Your task to perform on an android device: Show the shopping cart on bestbuy. Search for "razer deathadder" on bestbuy, select the first entry, and add it to the cart. Image 0: 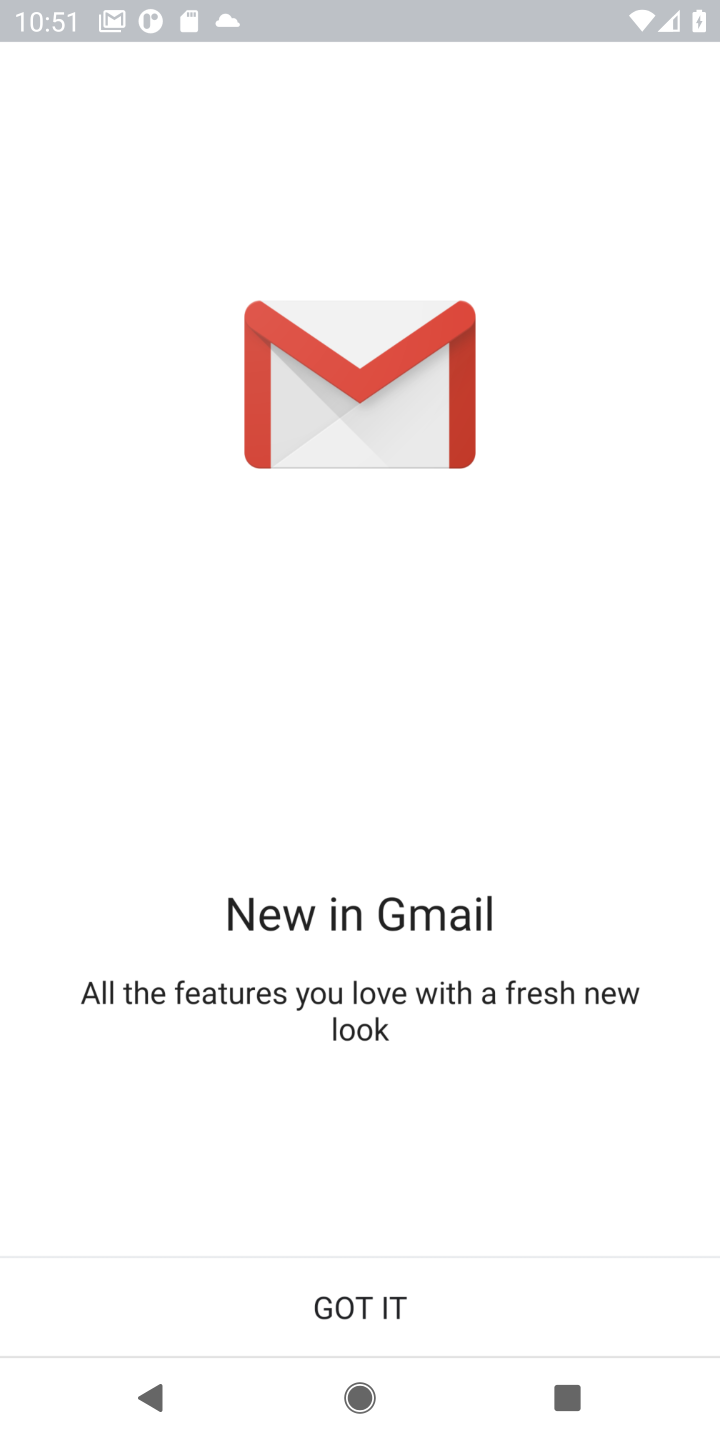
Step 0: press home button
Your task to perform on an android device: Show the shopping cart on bestbuy. Search for "razer deathadder" on bestbuy, select the first entry, and add it to the cart. Image 1: 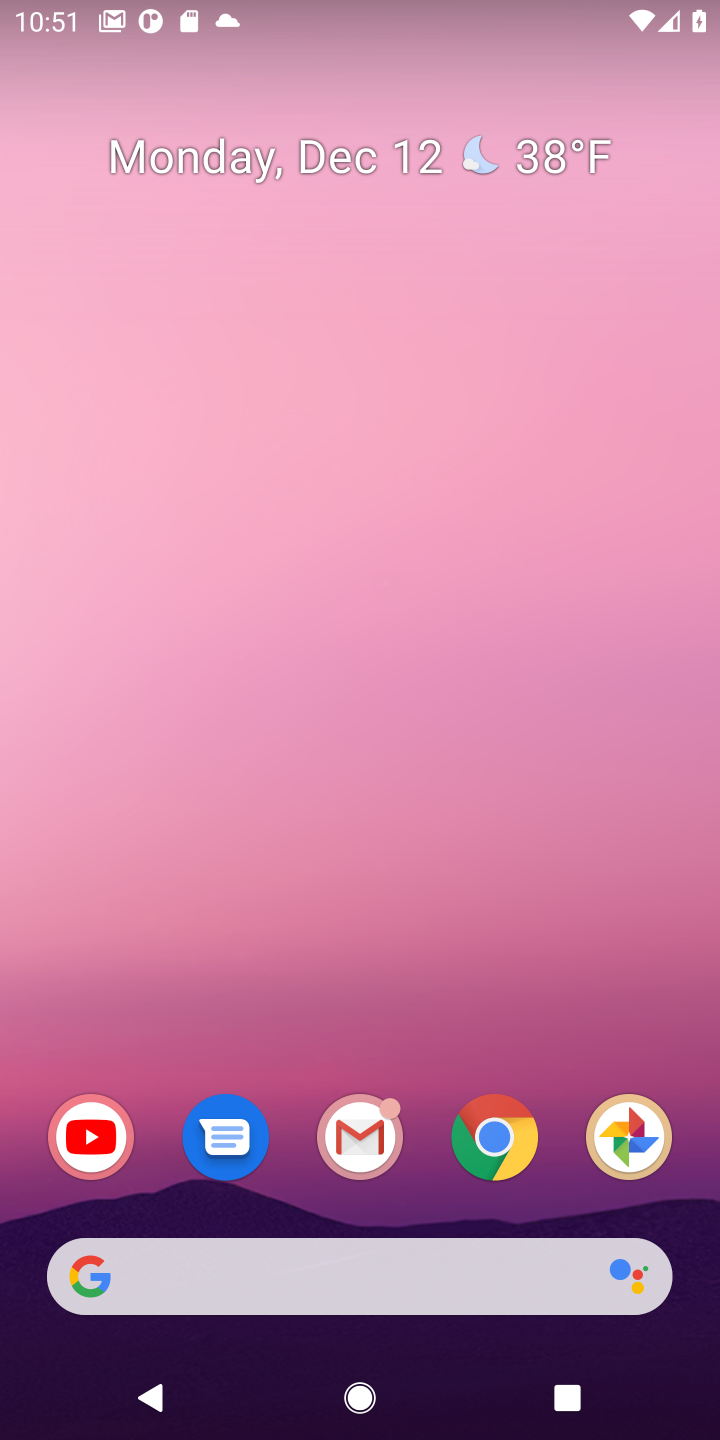
Step 1: click (438, 1290)
Your task to perform on an android device: Show the shopping cart on bestbuy. Search for "razer deathadder" on bestbuy, select the first entry, and add it to the cart. Image 2: 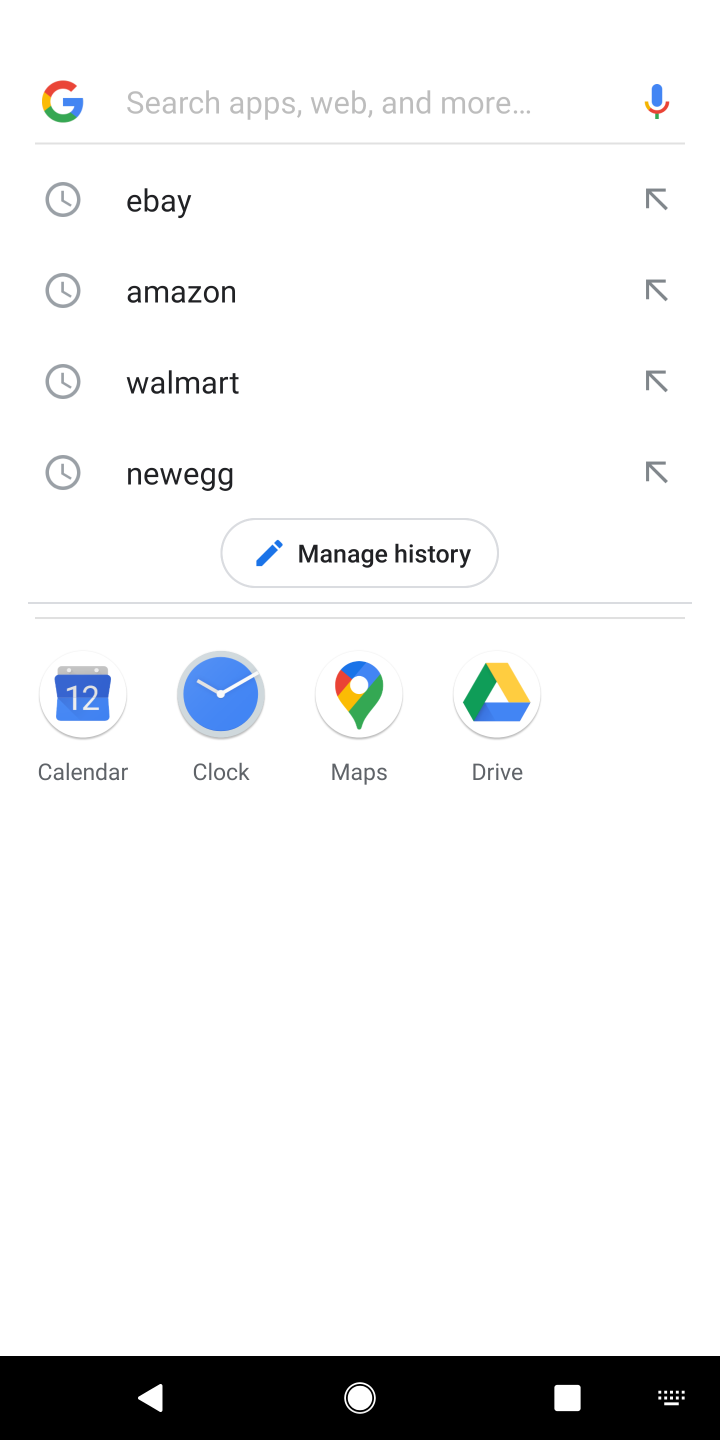
Step 2: type "bestbuy"
Your task to perform on an android device: Show the shopping cart on bestbuy. Search for "razer deathadder" on bestbuy, select the first entry, and add it to the cart. Image 3: 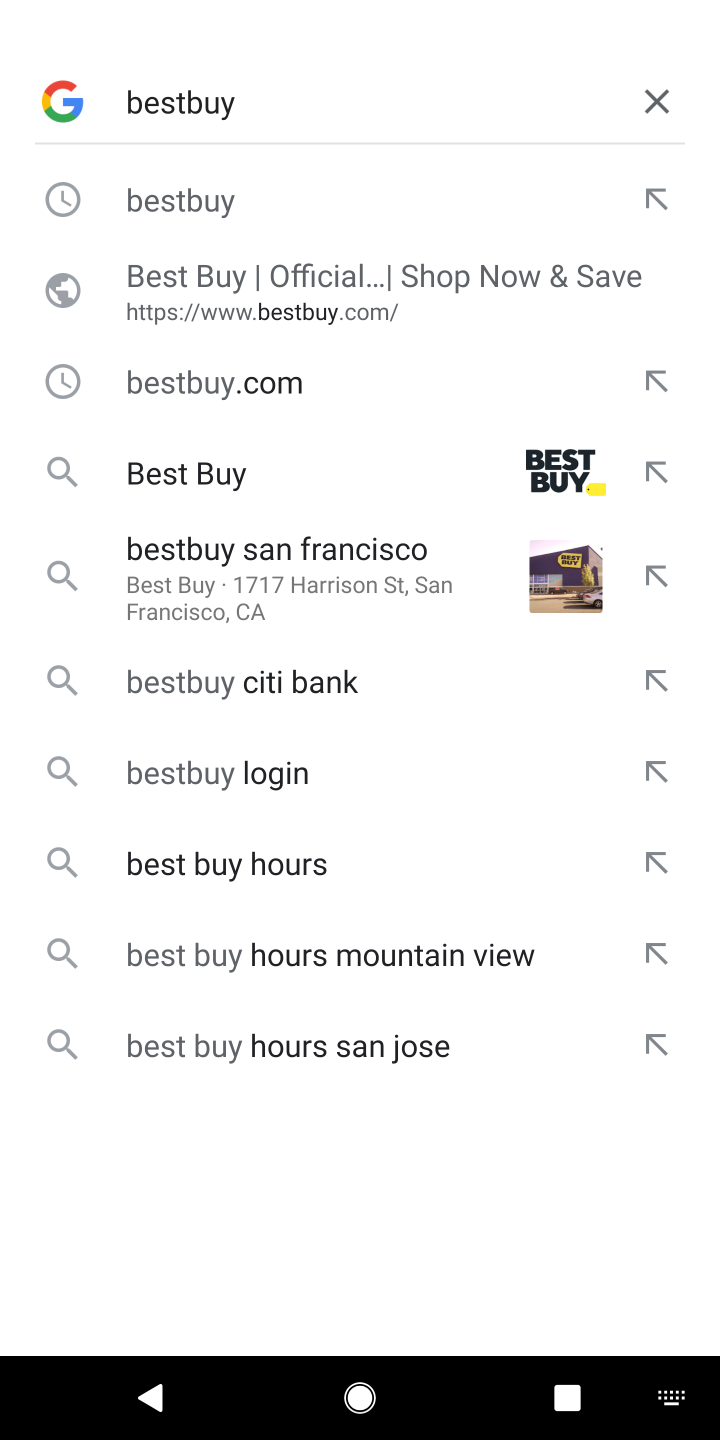
Step 3: click (274, 183)
Your task to perform on an android device: Show the shopping cart on bestbuy. Search for "razer deathadder" on bestbuy, select the first entry, and add it to the cart. Image 4: 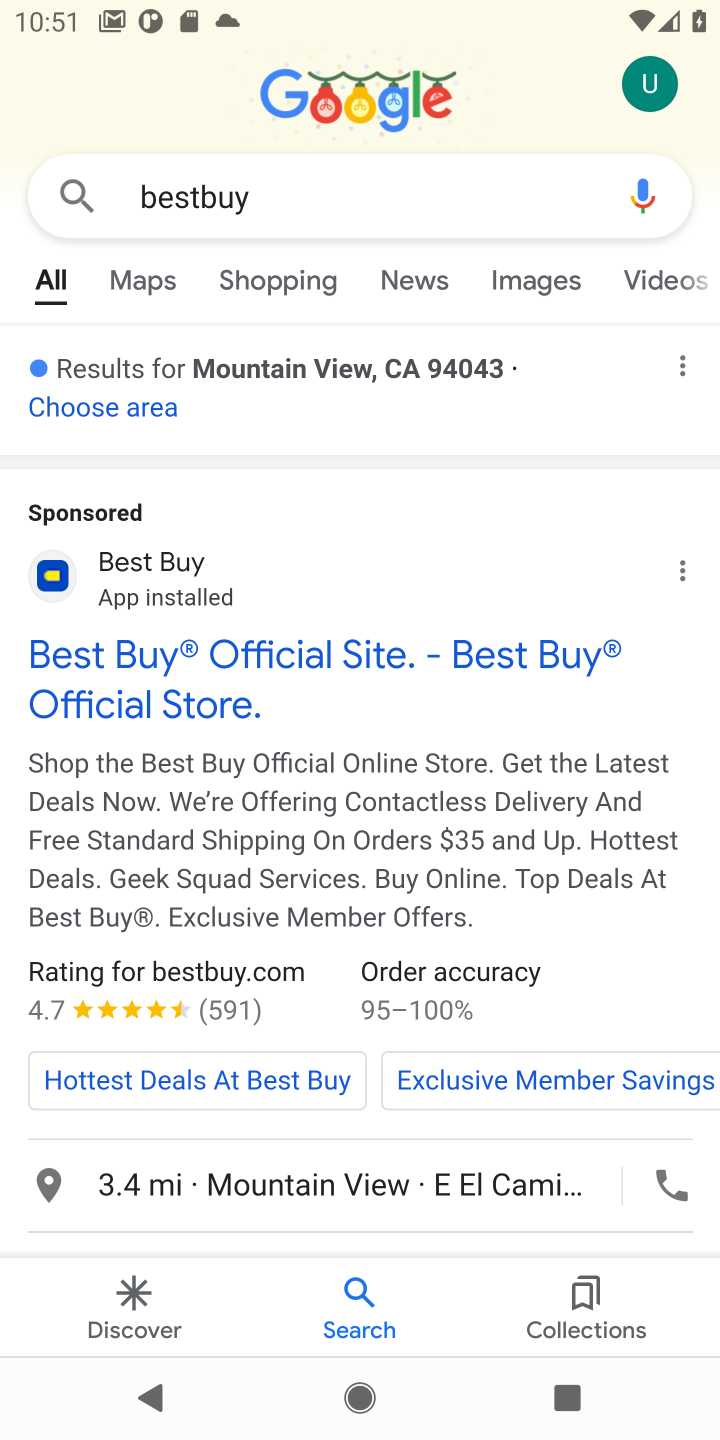
Step 4: click (188, 646)
Your task to perform on an android device: Show the shopping cart on bestbuy. Search for "razer deathadder" on bestbuy, select the first entry, and add it to the cart. Image 5: 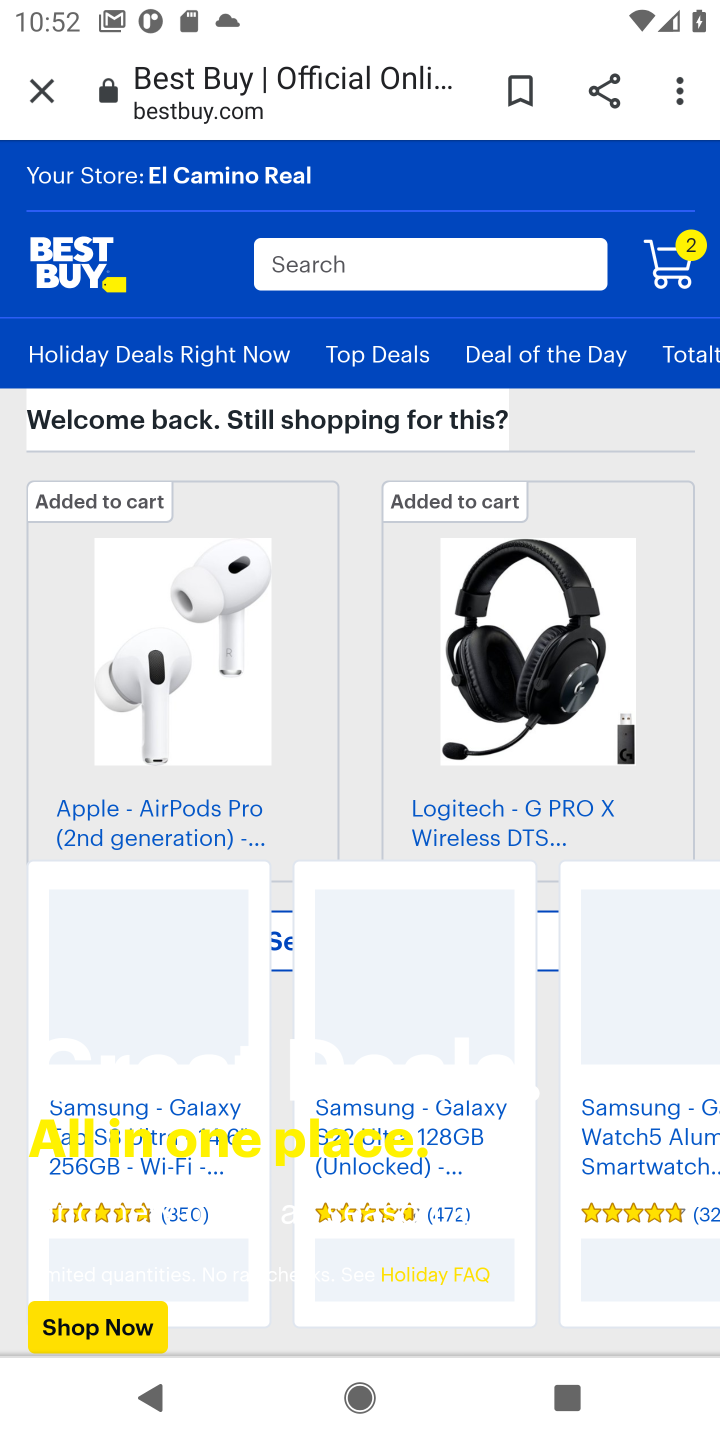
Step 5: click (350, 258)
Your task to perform on an android device: Show the shopping cart on bestbuy. Search for "razer deathadder" on bestbuy, select the first entry, and add it to the cart. Image 6: 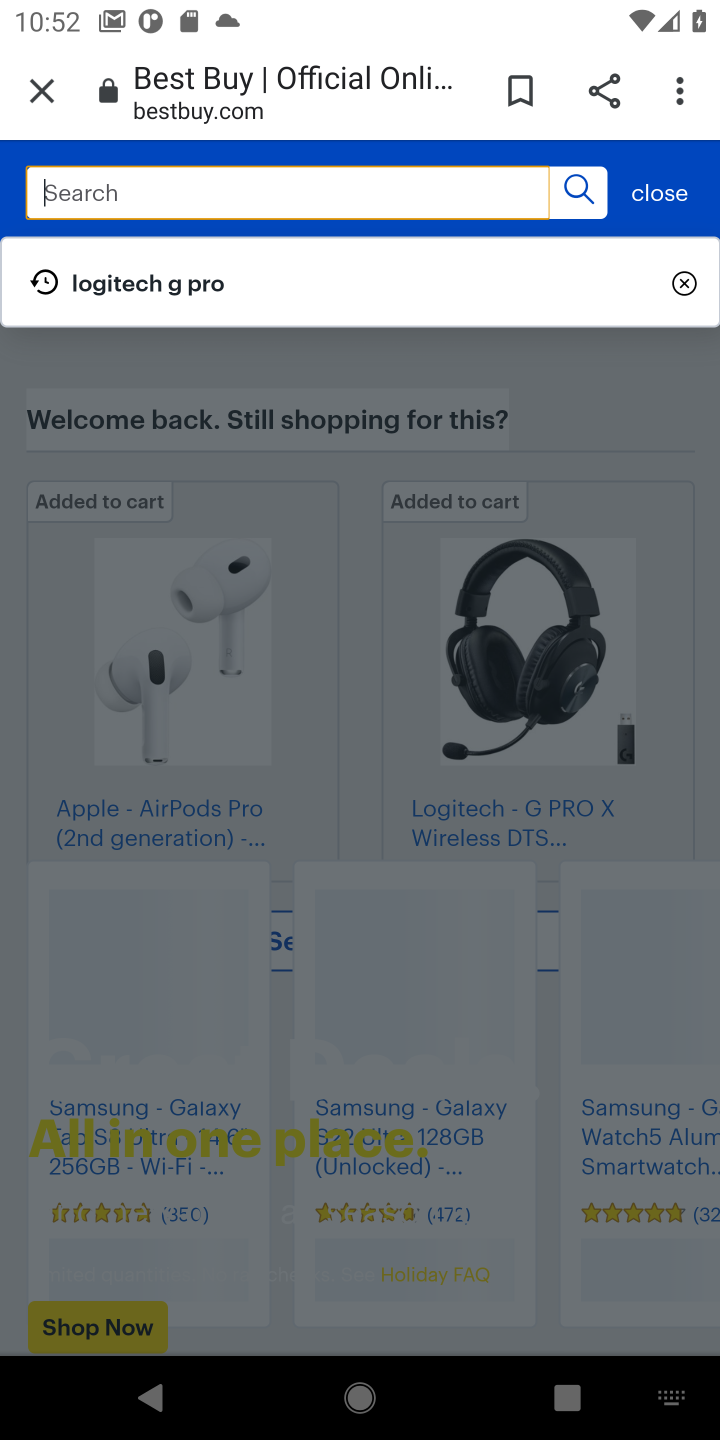
Step 6: type "razer deathadder"
Your task to perform on an android device: Show the shopping cart on bestbuy. Search for "razer deathadder" on bestbuy, select the first entry, and add it to the cart. Image 7: 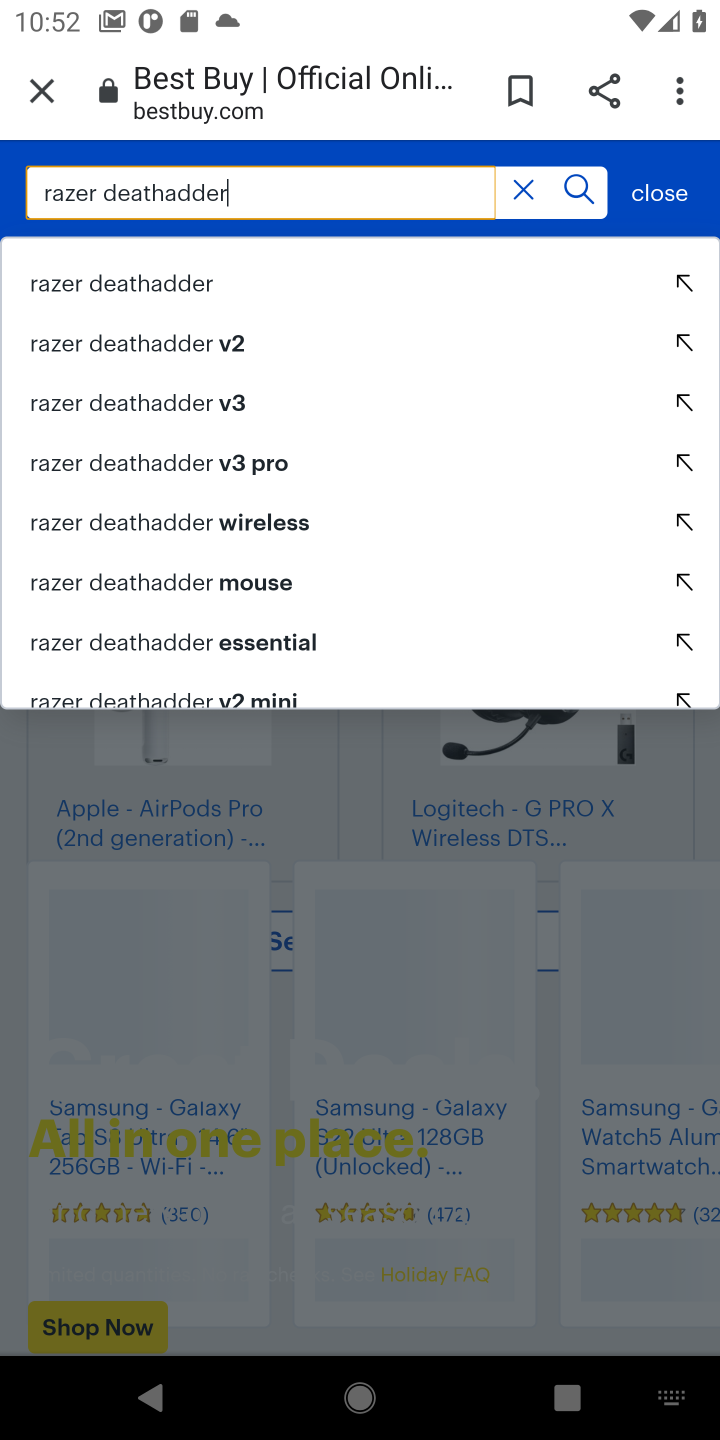
Step 7: click (184, 272)
Your task to perform on an android device: Show the shopping cart on bestbuy. Search for "razer deathadder" on bestbuy, select the first entry, and add it to the cart. Image 8: 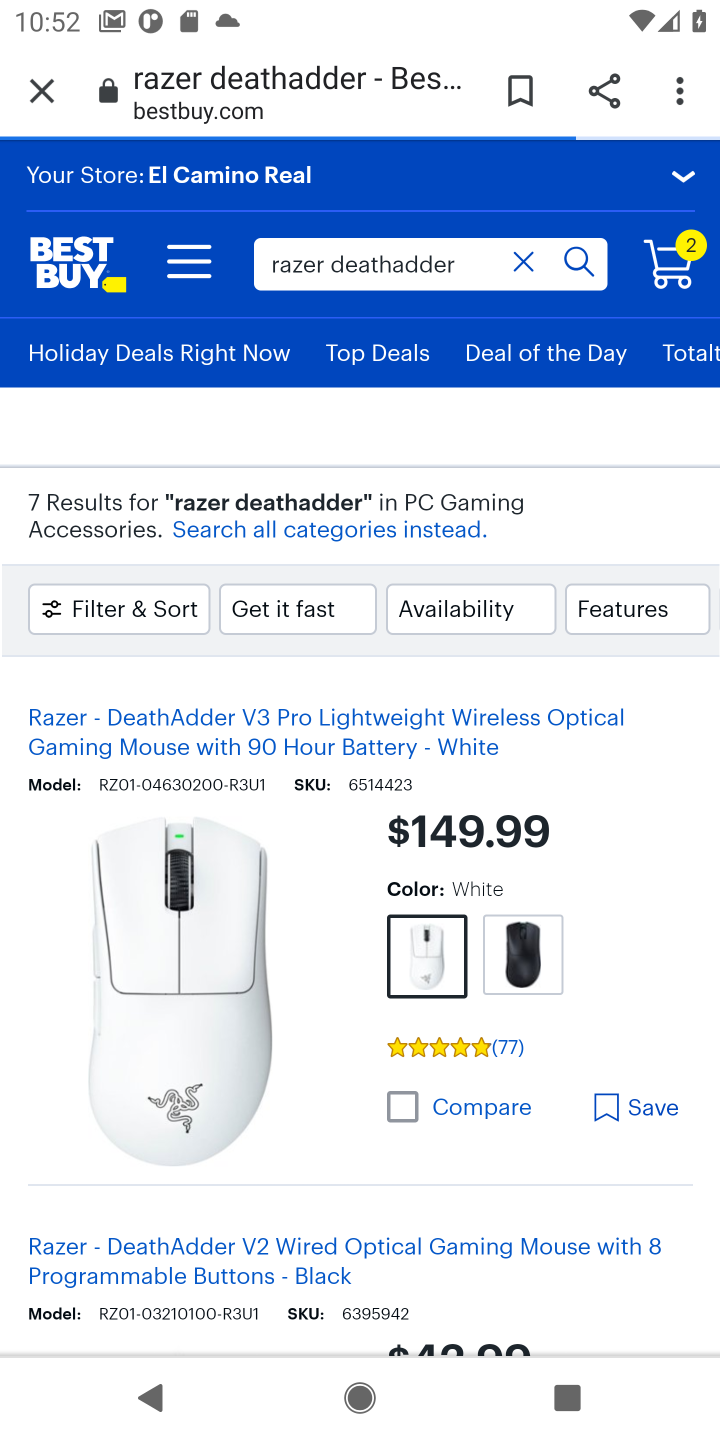
Step 8: drag from (307, 1216) to (314, 762)
Your task to perform on an android device: Show the shopping cart on bestbuy. Search for "razer deathadder" on bestbuy, select the first entry, and add it to the cart. Image 9: 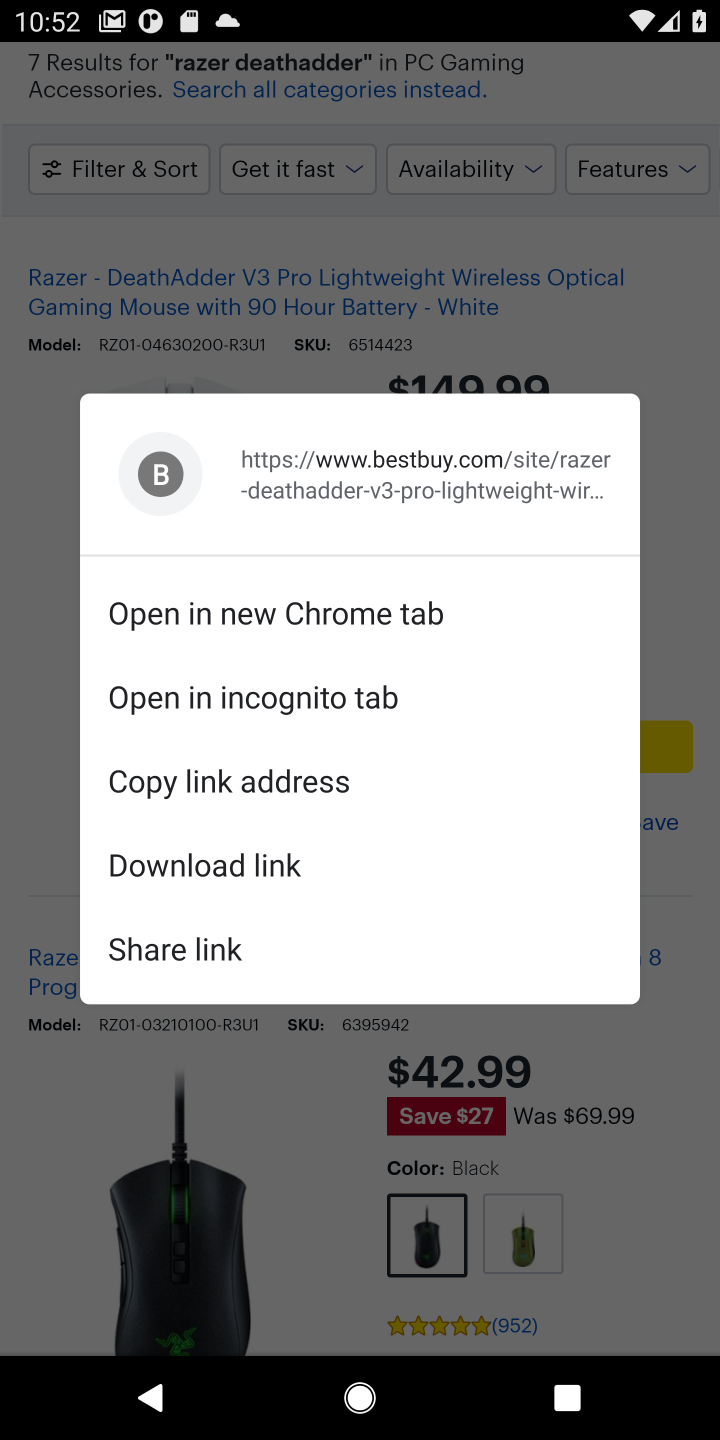
Step 9: click (486, 757)
Your task to perform on an android device: Show the shopping cart on bestbuy. Search for "razer deathadder" on bestbuy, select the first entry, and add it to the cart. Image 10: 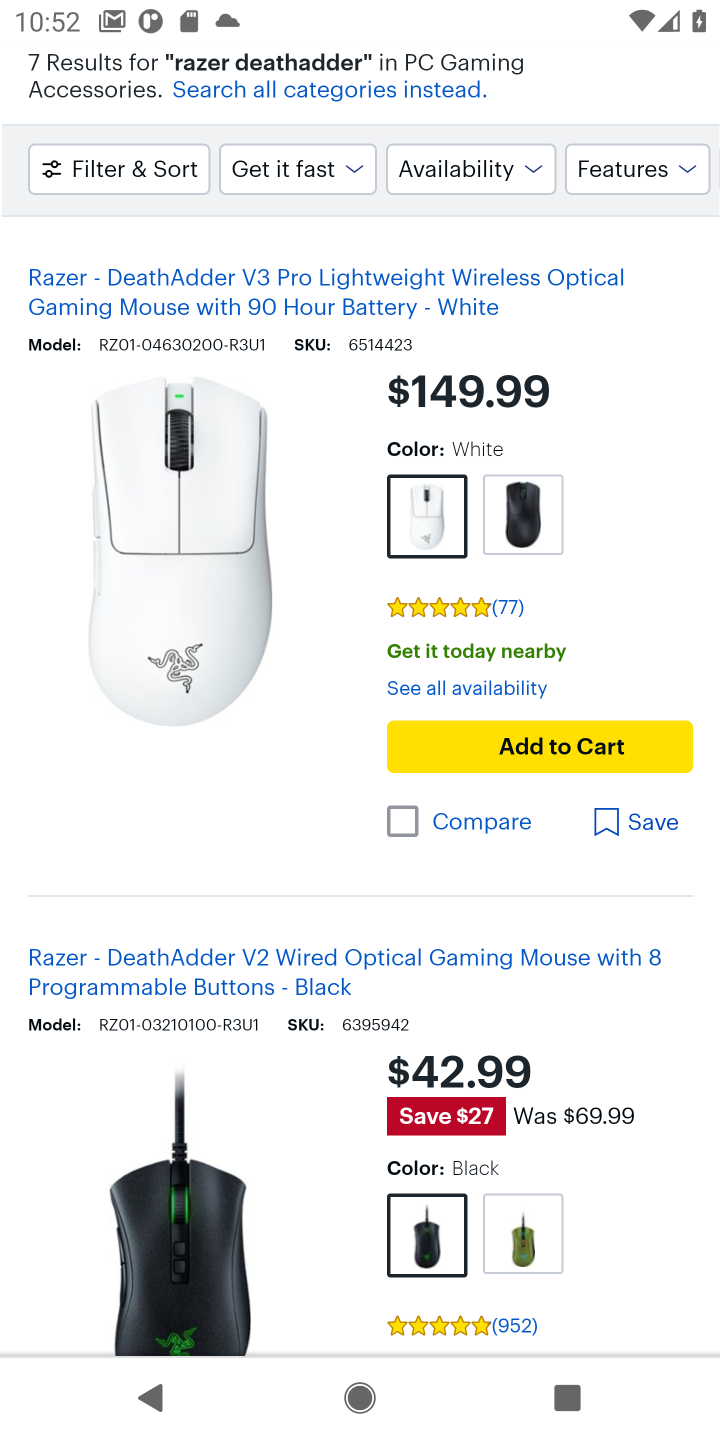
Step 10: click (692, 788)
Your task to perform on an android device: Show the shopping cart on bestbuy. Search for "razer deathadder" on bestbuy, select the first entry, and add it to the cart. Image 11: 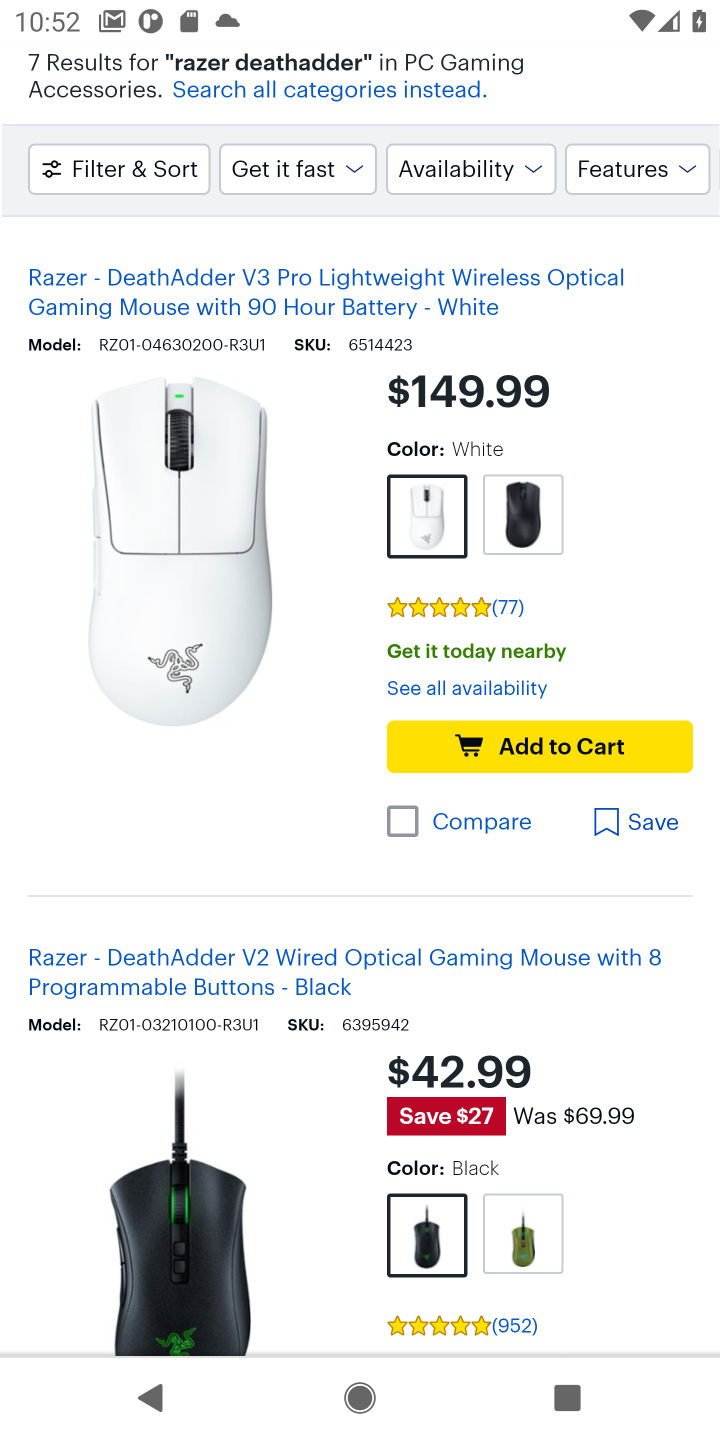
Step 11: click (674, 766)
Your task to perform on an android device: Show the shopping cart on bestbuy. Search for "razer deathadder" on bestbuy, select the first entry, and add it to the cart. Image 12: 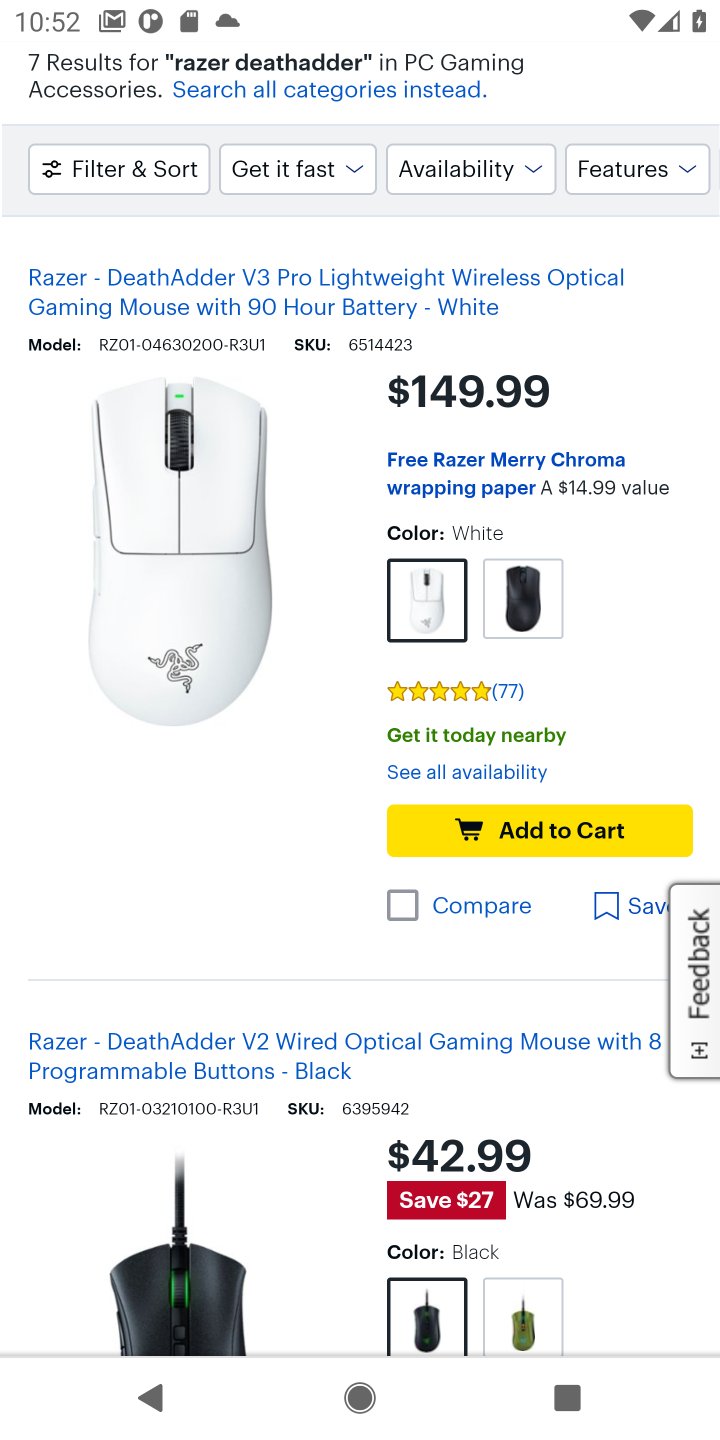
Step 12: click (599, 817)
Your task to perform on an android device: Show the shopping cart on bestbuy. Search for "razer deathadder" on bestbuy, select the first entry, and add it to the cart. Image 13: 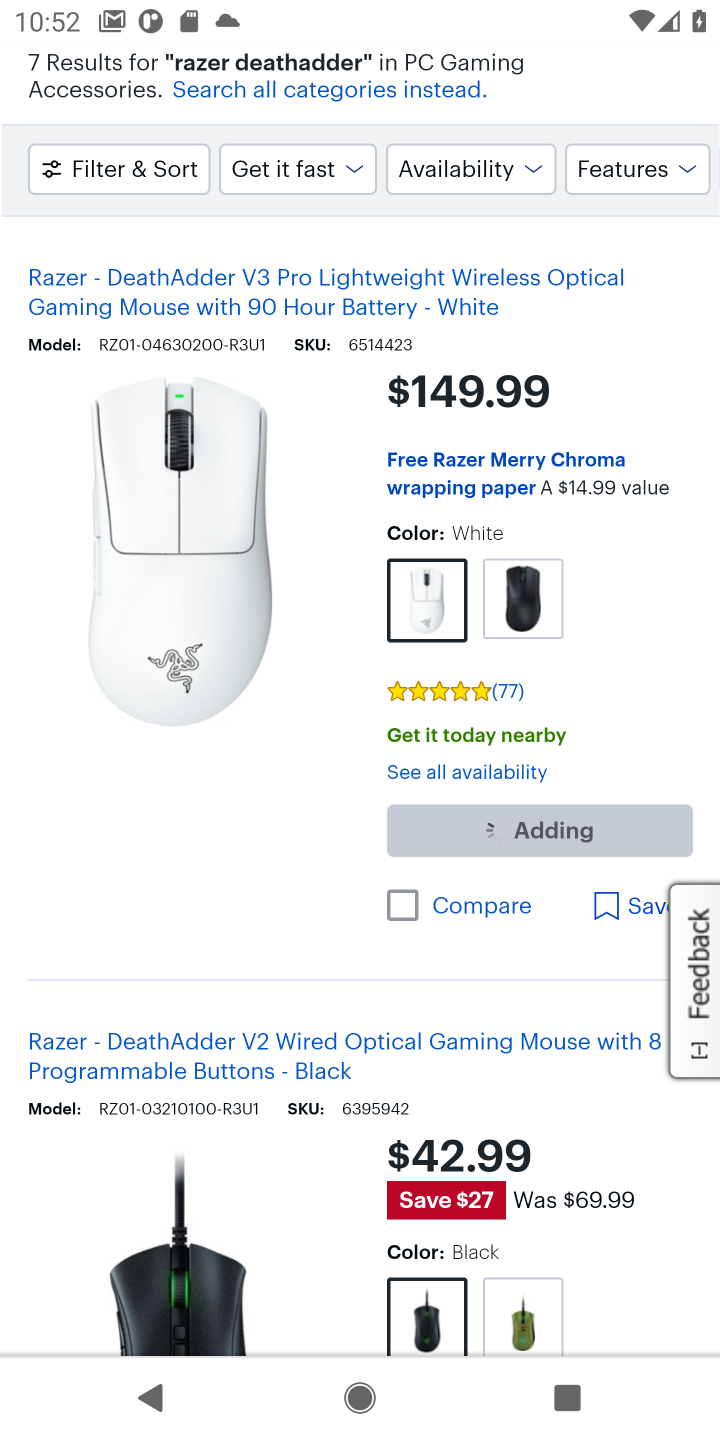
Step 13: task complete